Your task to perform on an android device: turn on bluetooth scan Image 0: 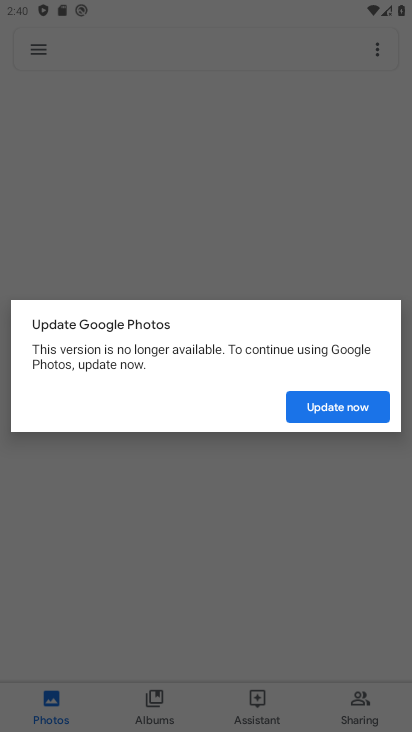
Step 0: press home button
Your task to perform on an android device: turn on bluetooth scan Image 1: 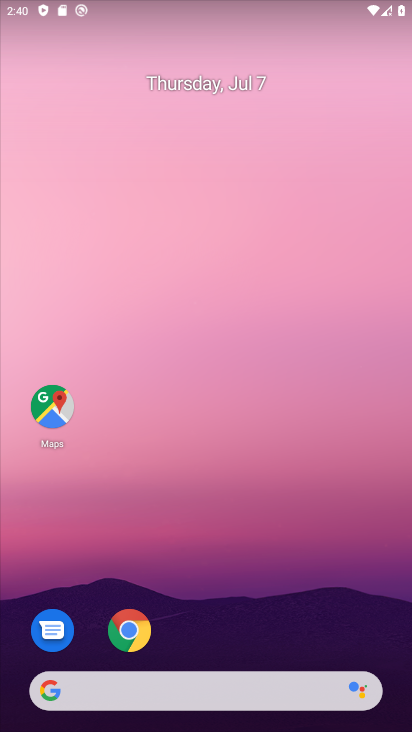
Step 1: drag from (223, 641) to (218, 283)
Your task to perform on an android device: turn on bluetooth scan Image 2: 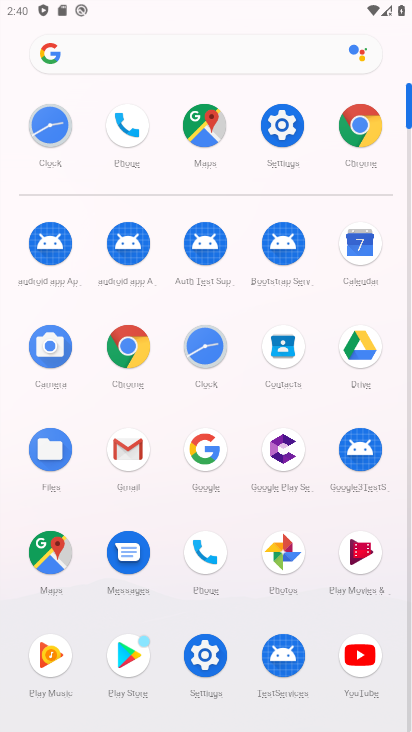
Step 2: click (283, 117)
Your task to perform on an android device: turn on bluetooth scan Image 3: 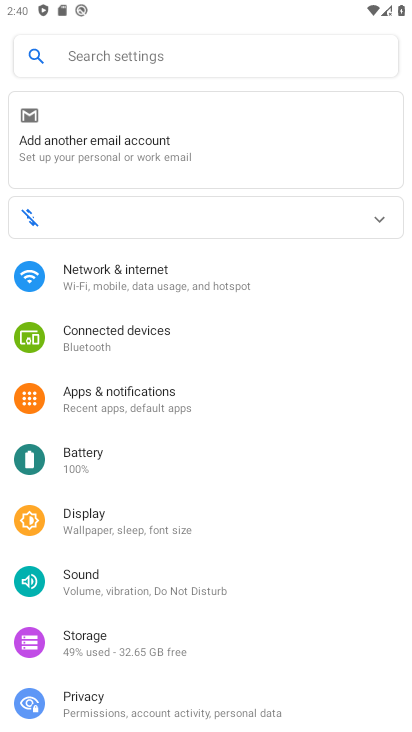
Step 3: drag from (200, 527) to (218, 245)
Your task to perform on an android device: turn on bluetooth scan Image 4: 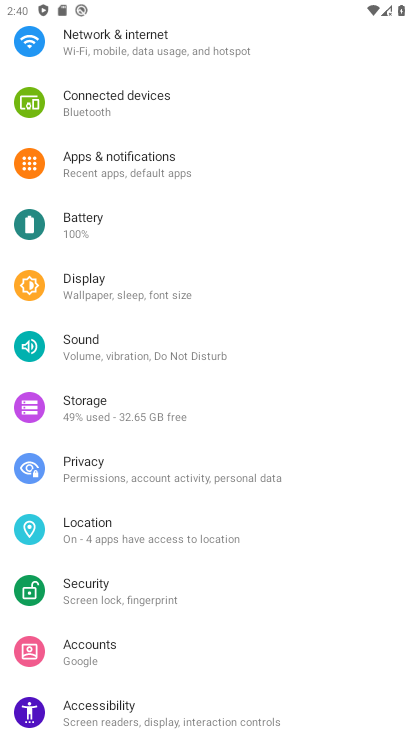
Step 4: drag from (133, 241) to (148, 397)
Your task to perform on an android device: turn on bluetooth scan Image 5: 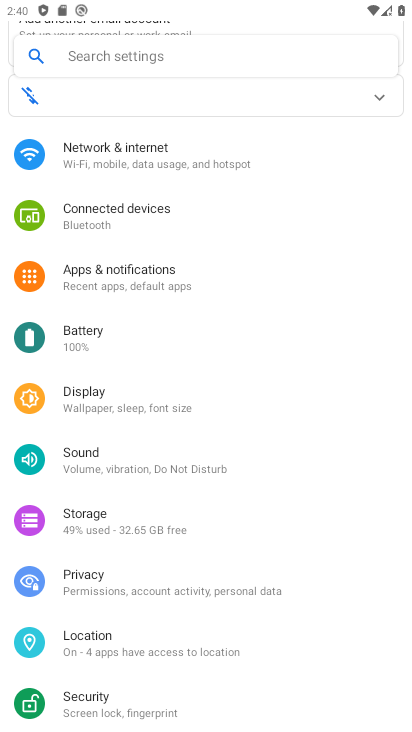
Step 5: click (123, 154)
Your task to perform on an android device: turn on bluetooth scan Image 6: 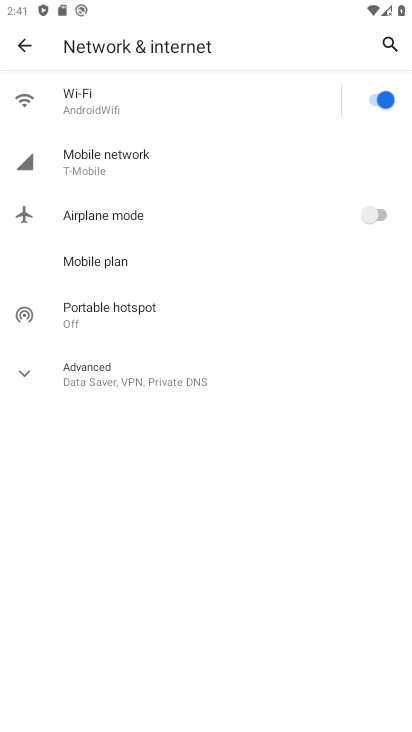
Step 6: click (39, 59)
Your task to perform on an android device: turn on bluetooth scan Image 7: 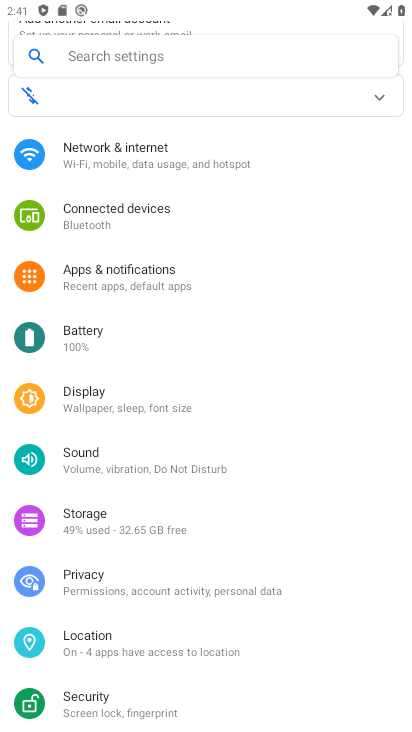
Step 7: click (102, 219)
Your task to perform on an android device: turn on bluetooth scan Image 8: 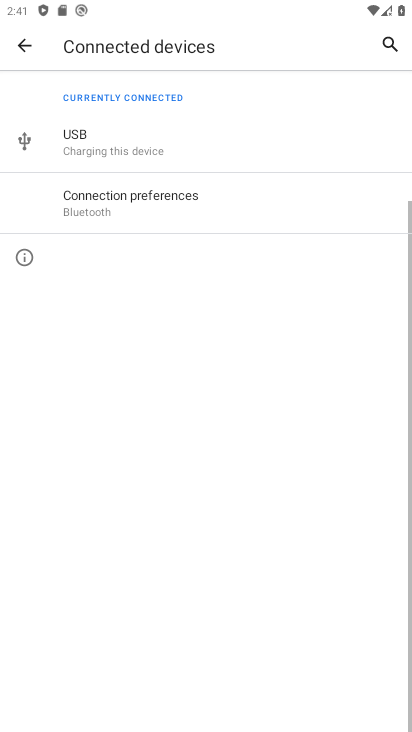
Step 8: click (17, 42)
Your task to perform on an android device: turn on bluetooth scan Image 9: 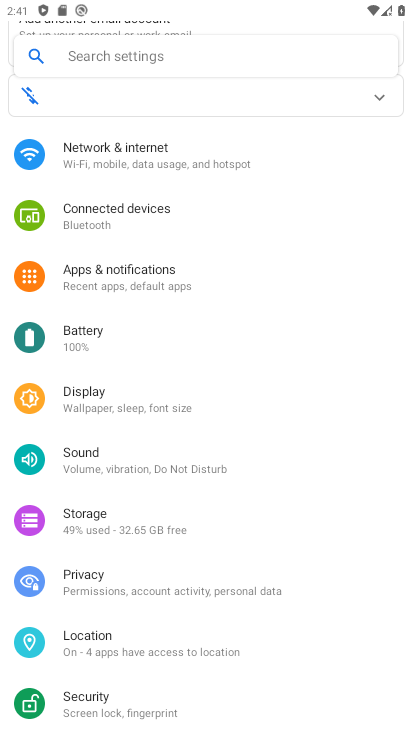
Step 9: click (94, 270)
Your task to perform on an android device: turn on bluetooth scan Image 10: 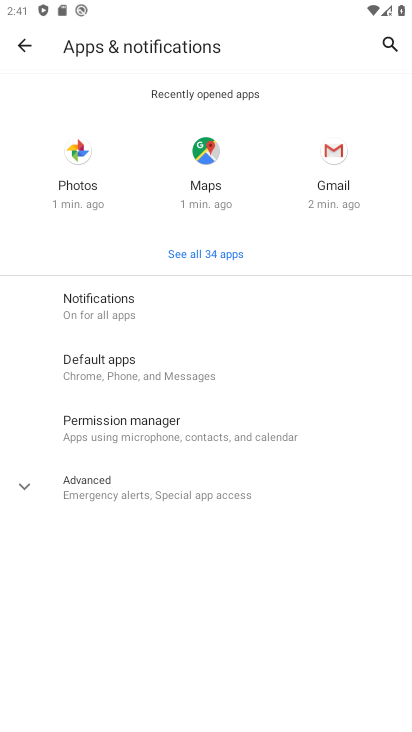
Step 10: click (16, 47)
Your task to perform on an android device: turn on bluetooth scan Image 11: 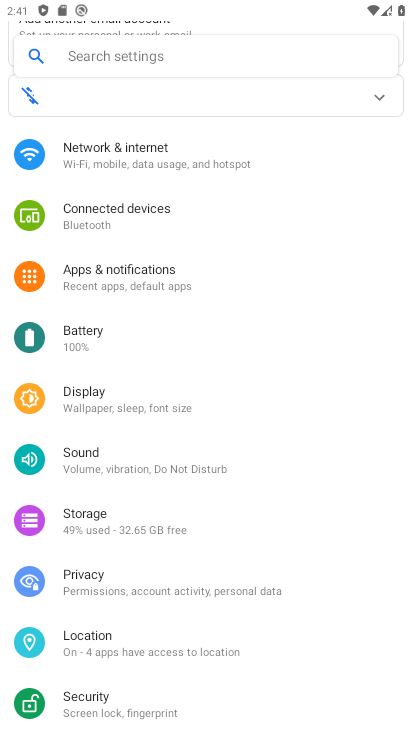
Step 11: click (284, 53)
Your task to perform on an android device: turn on bluetooth scan Image 12: 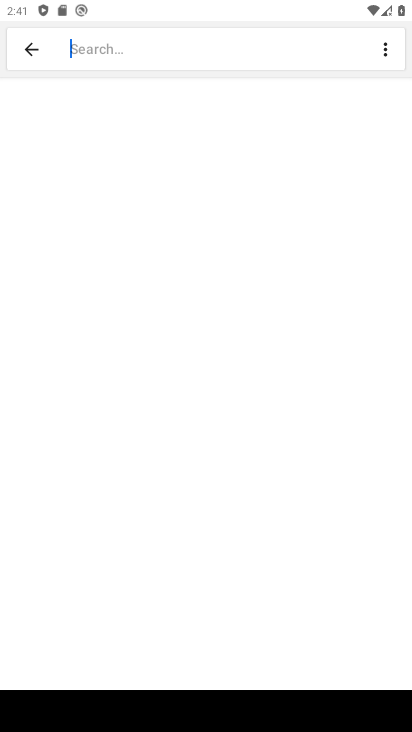
Step 12: type " bluetooth scan "
Your task to perform on an android device: turn on bluetooth scan Image 13: 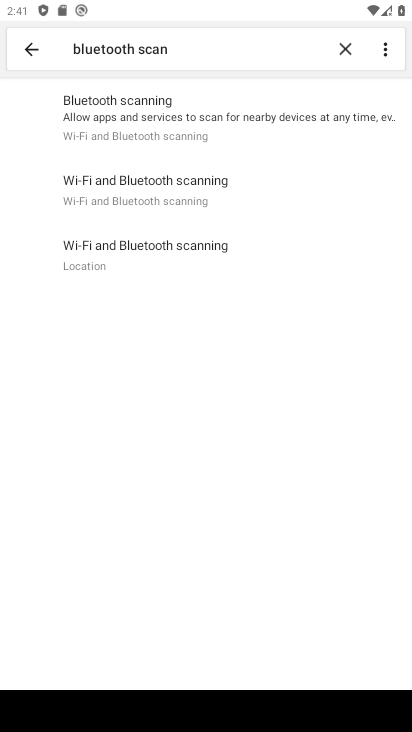
Step 13: click (202, 112)
Your task to perform on an android device: turn on bluetooth scan Image 14: 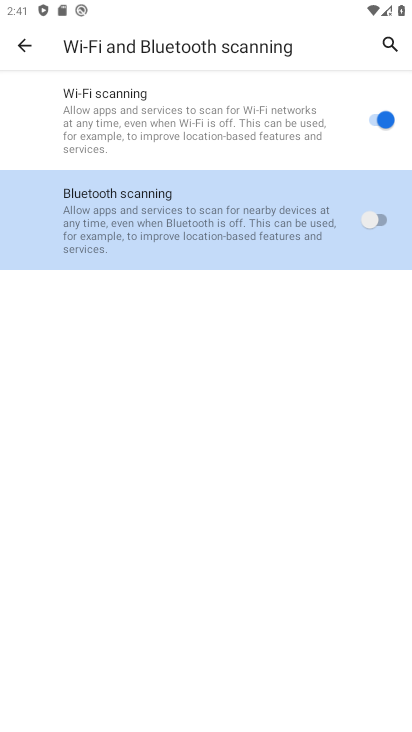
Step 14: click (373, 218)
Your task to perform on an android device: turn on bluetooth scan Image 15: 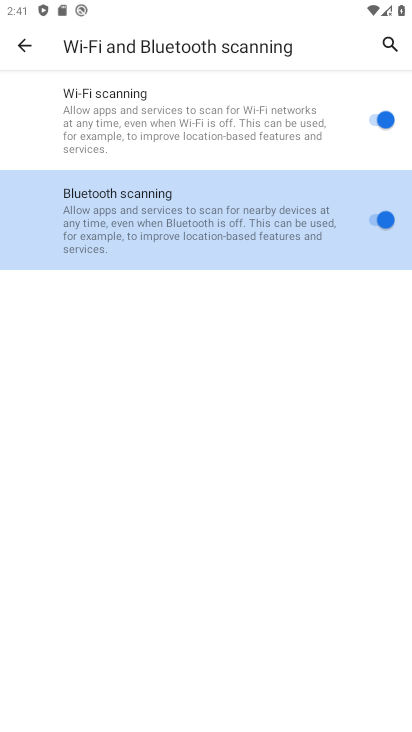
Step 15: task complete